Your task to perform on an android device: turn on wifi Image 0: 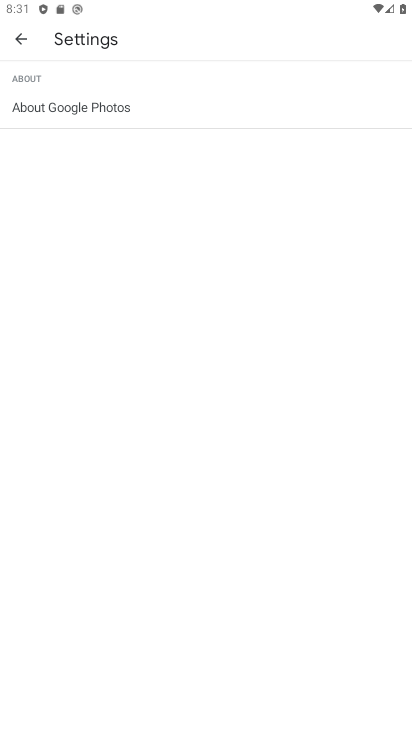
Step 0: press back button
Your task to perform on an android device: turn on wifi Image 1: 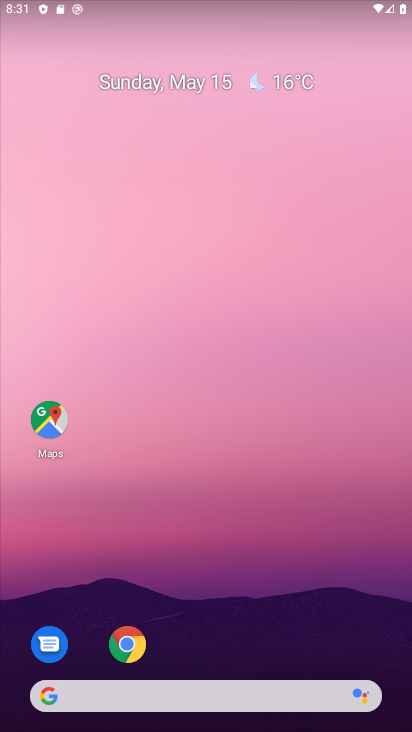
Step 1: task complete